Your task to perform on an android device: allow notifications from all sites in the chrome app Image 0: 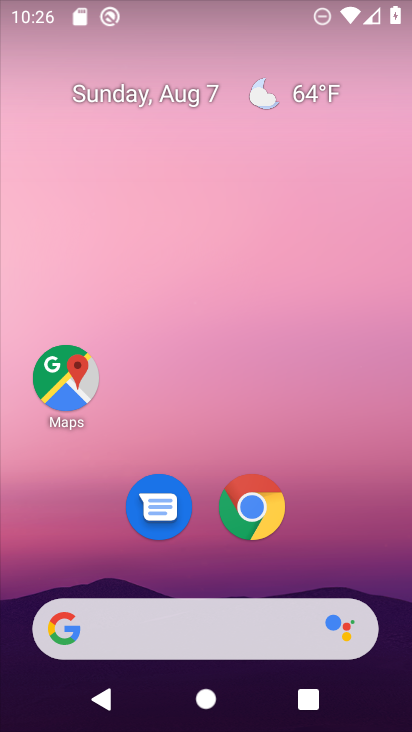
Step 0: drag from (371, 534) to (340, 18)
Your task to perform on an android device: allow notifications from all sites in the chrome app Image 1: 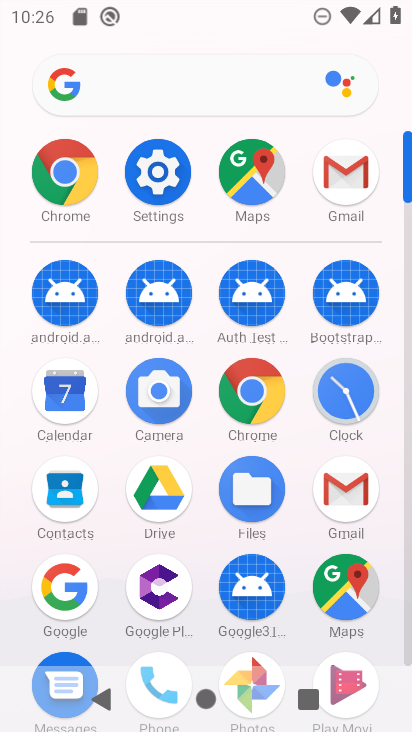
Step 1: click (251, 387)
Your task to perform on an android device: allow notifications from all sites in the chrome app Image 2: 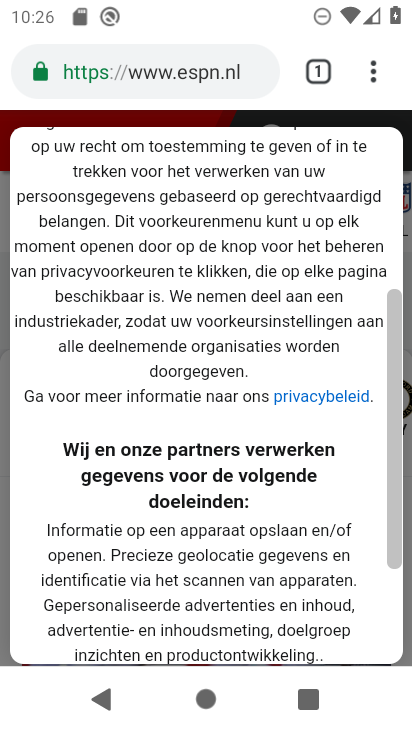
Step 2: drag from (375, 55) to (199, 500)
Your task to perform on an android device: allow notifications from all sites in the chrome app Image 3: 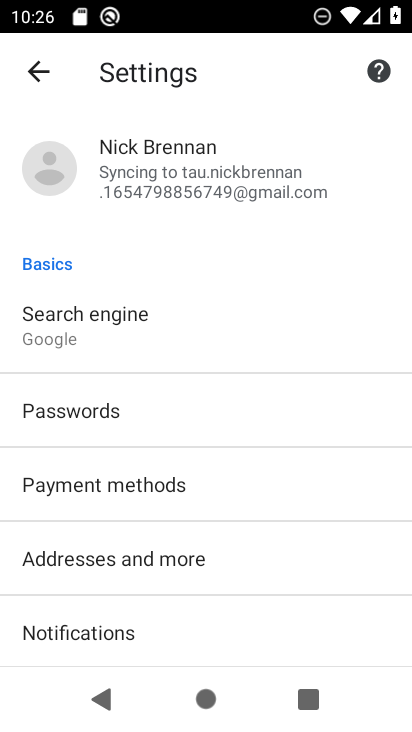
Step 3: drag from (285, 531) to (276, 151)
Your task to perform on an android device: allow notifications from all sites in the chrome app Image 4: 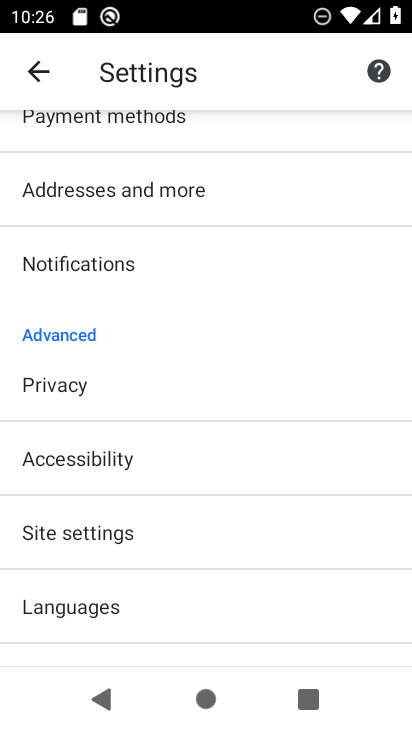
Step 4: click (47, 268)
Your task to perform on an android device: allow notifications from all sites in the chrome app Image 5: 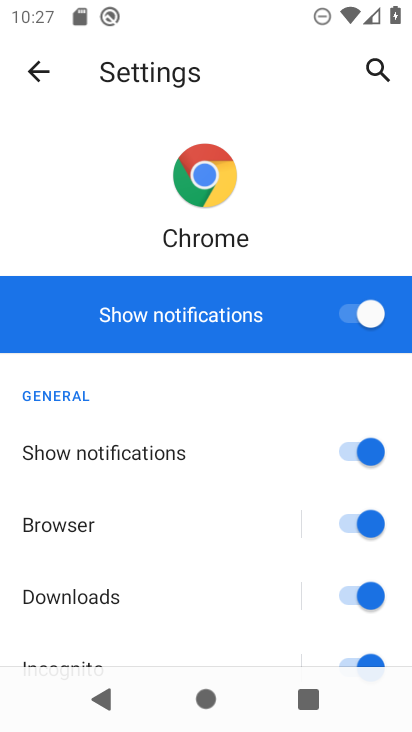
Step 5: task complete